Your task to perform on an android device: check battery use Image 0: 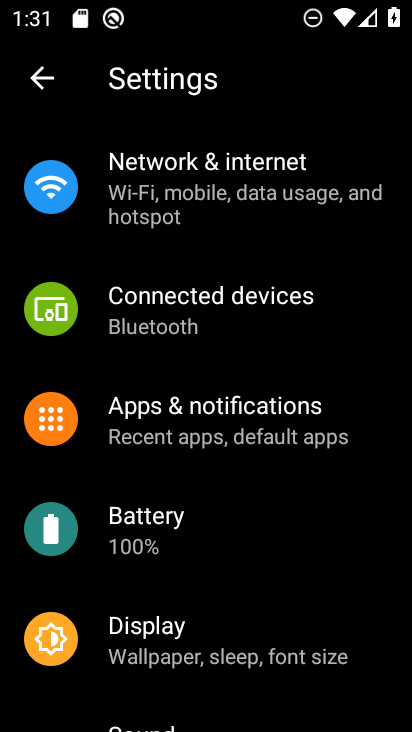
Step 0: press back button
Your task to perform on an android device: check battery use Image 1: 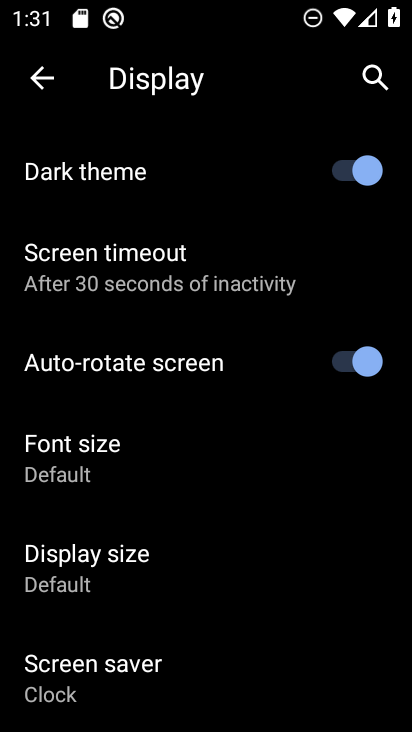
Step 1: press back button
Your task to perform on an android device: check battery use Image 2: 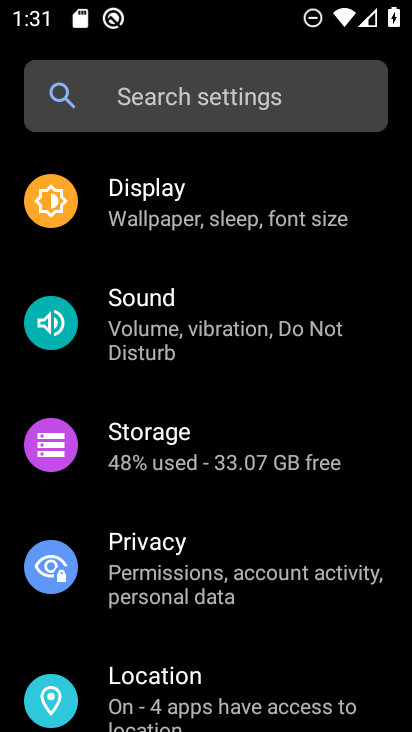
Step 2: drag from (257, 283) to (310, 377)
Your task to perform on an android device: check battery use Image 3: 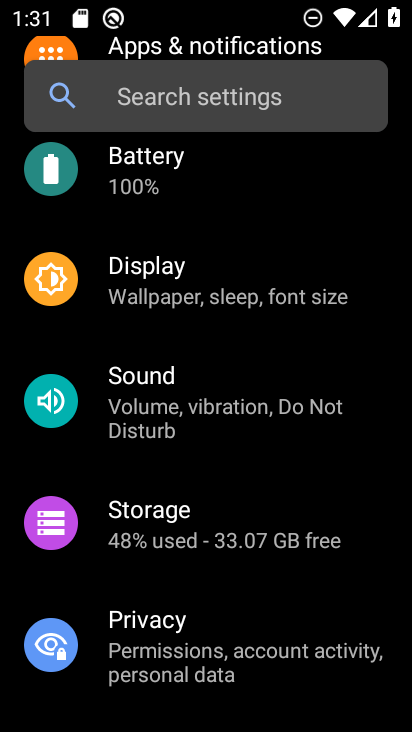
Step 3: drag from (243, 247) to (275, 373)
Your task to perform on an android device: check battery use Image 4: 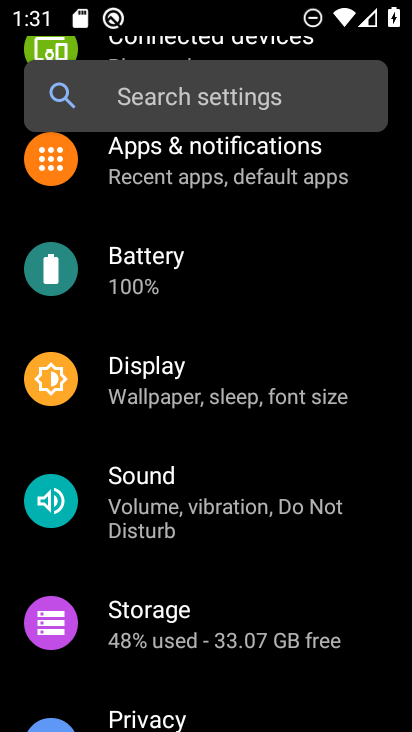
Step 4: click (142, 265)
Your task to perform on an android device: check battery use Image 5: 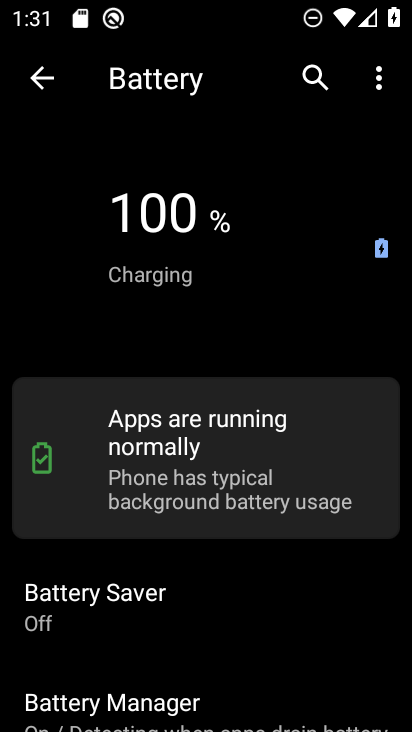
Step 5: click (379, 82)
Your task to perform on an android device: check battery use Image 6: 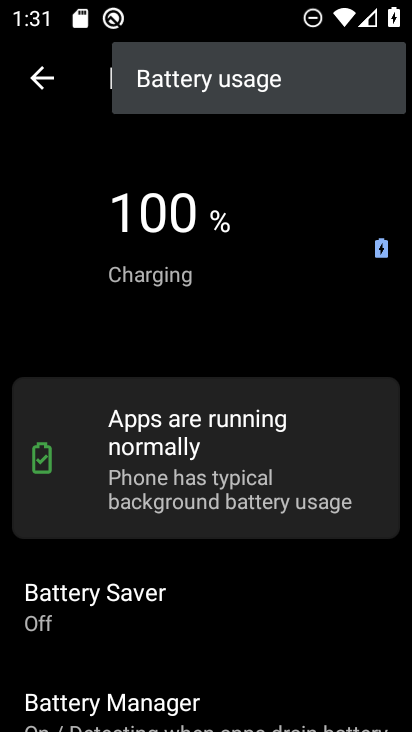
Step 6: click (251, 81)
Your task to perform on an android device: check battery use Image 7: 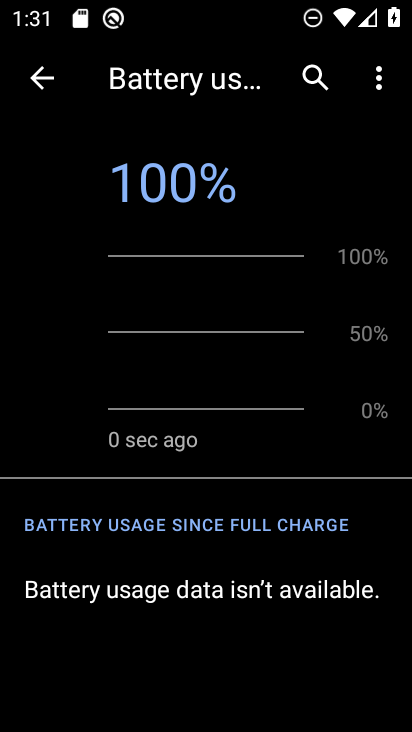
Step 7: task complete